Your task to perform on an android device: turn on wifi Image 0: 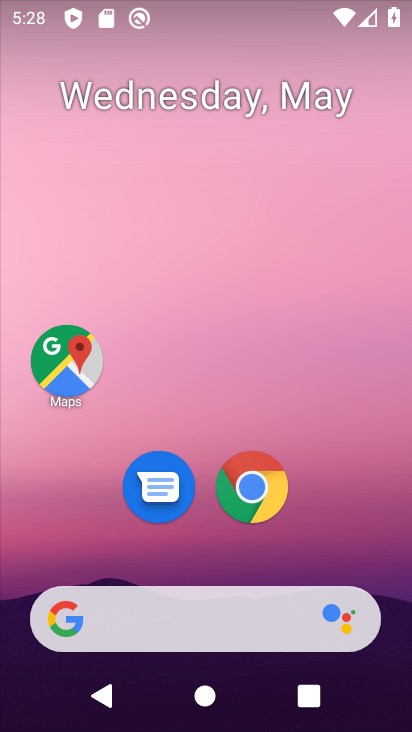
Step 0: drag from (229, 548) to (216, 97)
Your task to perform on an android device: turn on wifi Image 1: 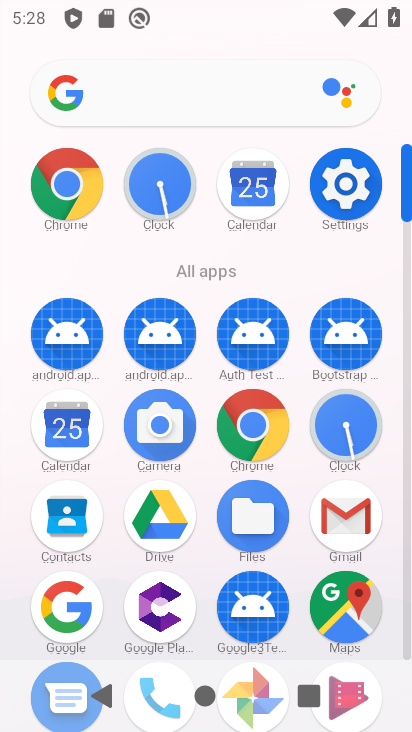
Step 1: click (353, 522)
Your task to perform on an android device: turn on wifi Image 2: 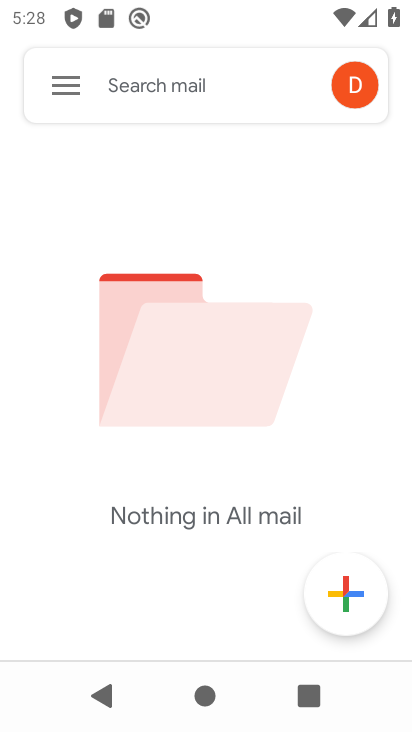
Step 2: click (67, 102)
Your task to perform on an android device: turn on wifi Image 3: 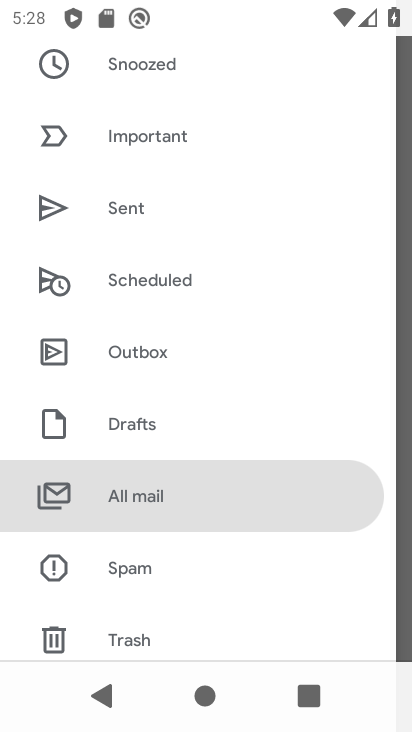
Step 3: click (113, 648)
Your task to perform on an android device: turn on wifi Image 4: 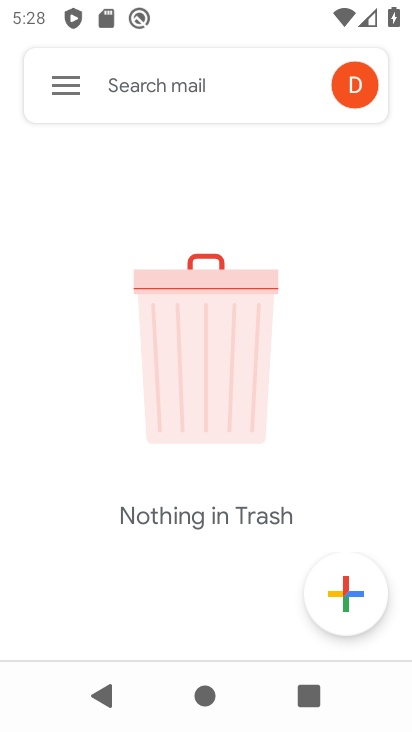
Step 4: task complete